Your task to perform on an android device: Clear all items from cart on costco. Search for "apple airpods" on costco, select the first entry, and add it to the cart. Image 0: 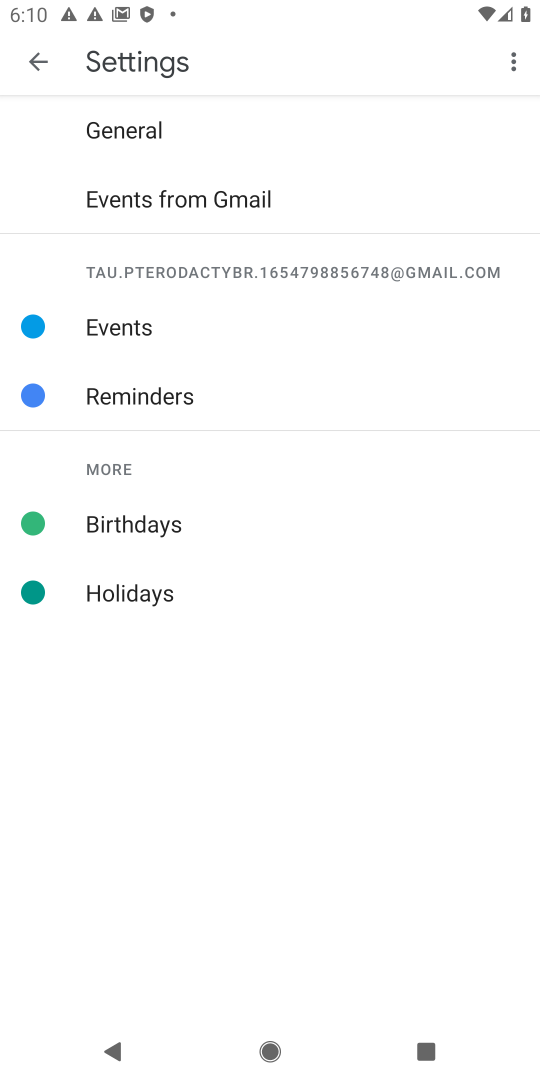
Step 0: press home button
Your task to perform on an android device: Clear all items from cart on costco. Search for "apple airpods" on costco, select the first entry, and add it to the cart. Image 1: 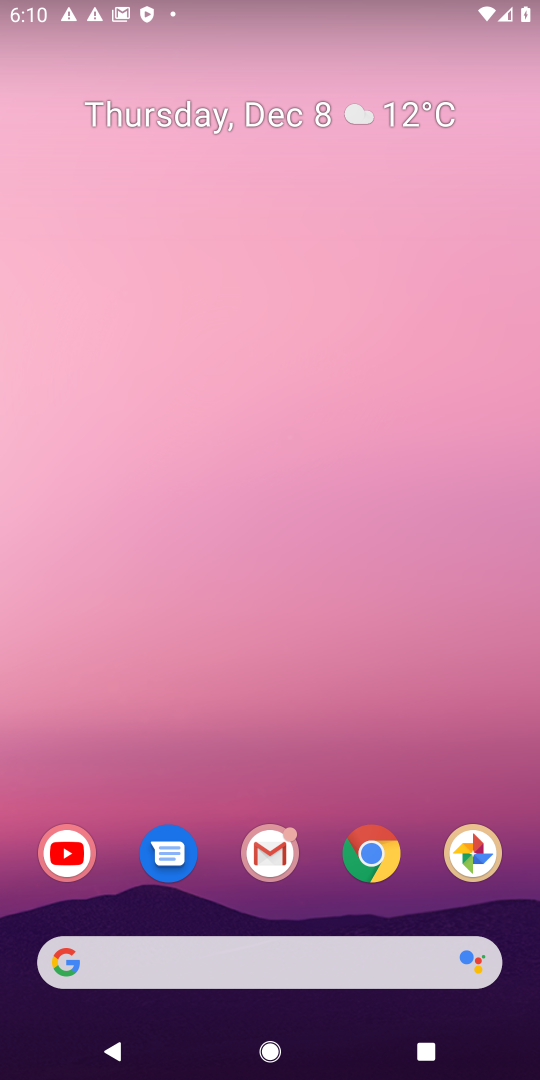
Step 1: click (155, 956)
Your task to perform on an android device: Clear all items from cart on costco. Search for "apple airpods" on costco, select the first entry, and add it to the cart. Image 2: 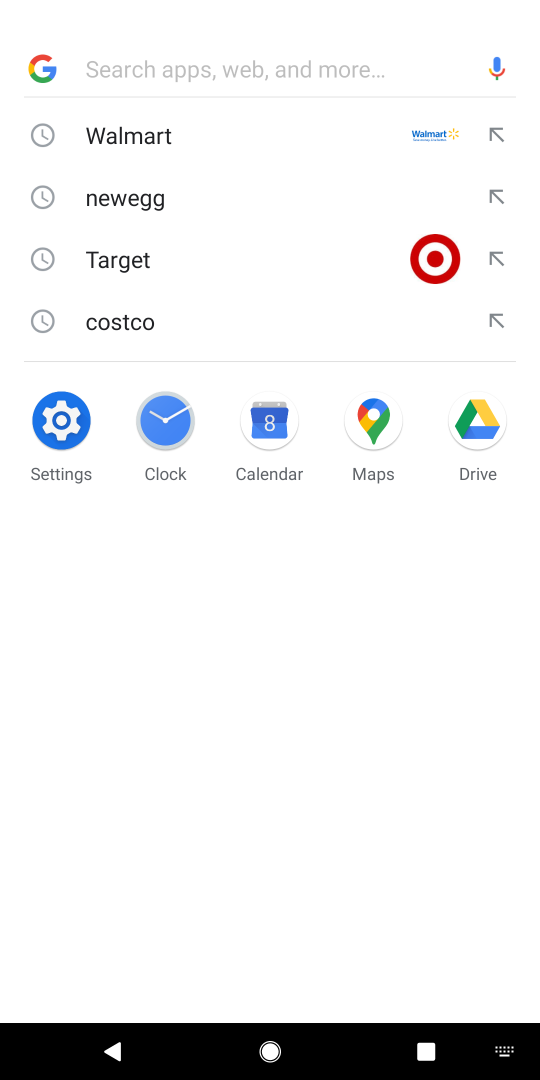
Step 2: click (86, 327)
Your task to perform on an android device: Clear all items from cart on costco. Search for "apple airpods" on costco, select the first entry, and add it to the cart. Image 3: 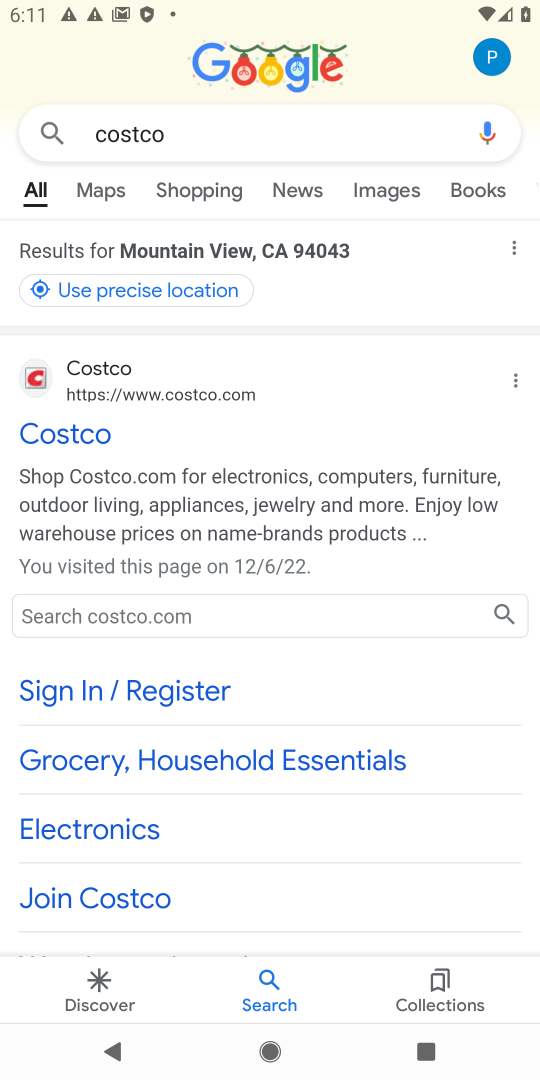
Step 3: click (68, 439)
Your task to perform on an android device: Clear all items from cart on costco. Search for "apple airpods" on costco, select the first entry, and add it to the cart. Image 4: 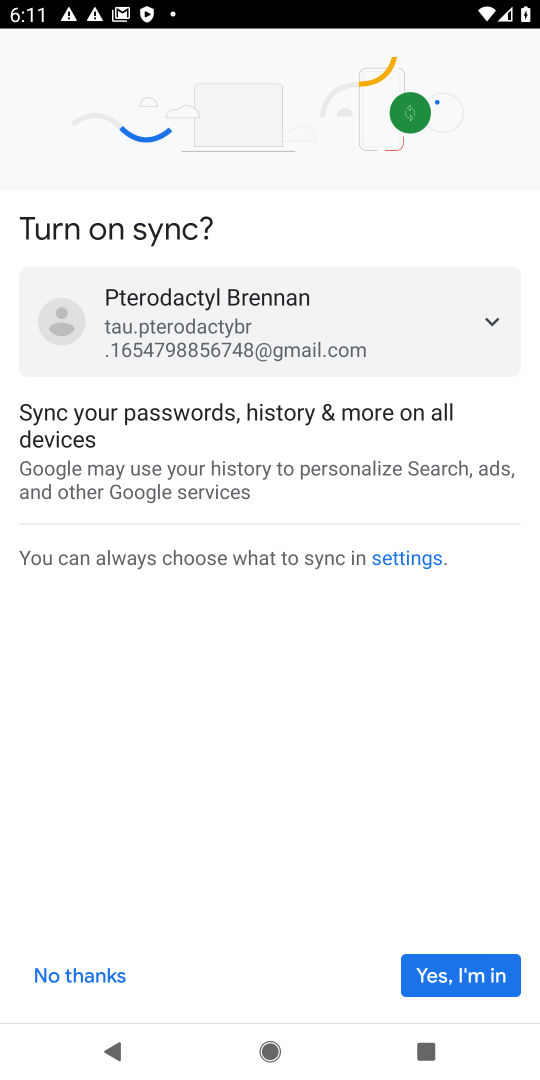
Step 4: click (451, 977)
Your task to perform on an android device: Clear all items from cart on costco. Search for "apple airpods" on costco, select the first entry, and add it to the cart. Image 5: 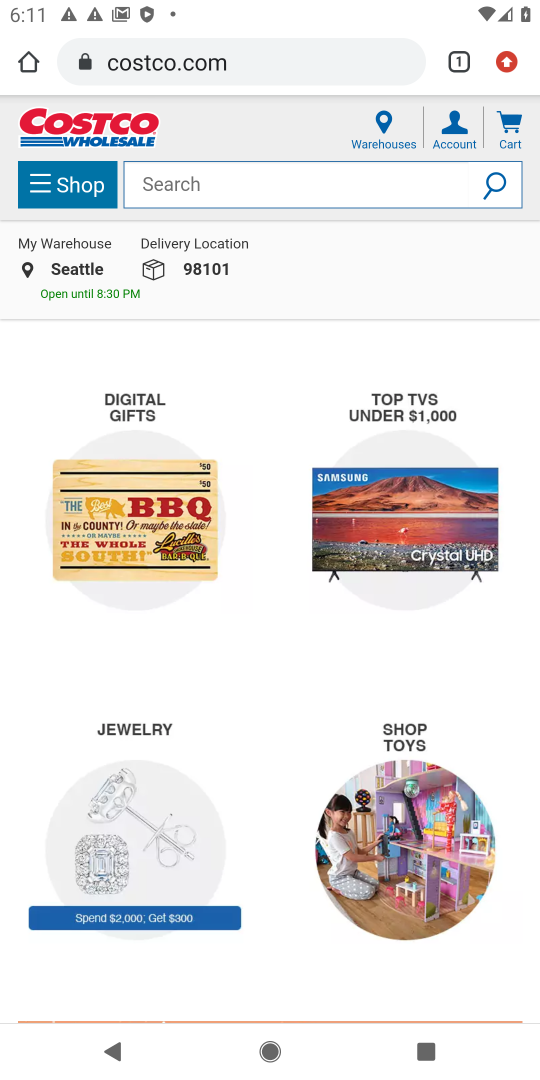
Step 5: click (506, 126)
Your task to perform on an android device: Clear all items from cart on costco. Search for "apple airpods" on costco, select the first entry, and add it to the cart. Image 6: 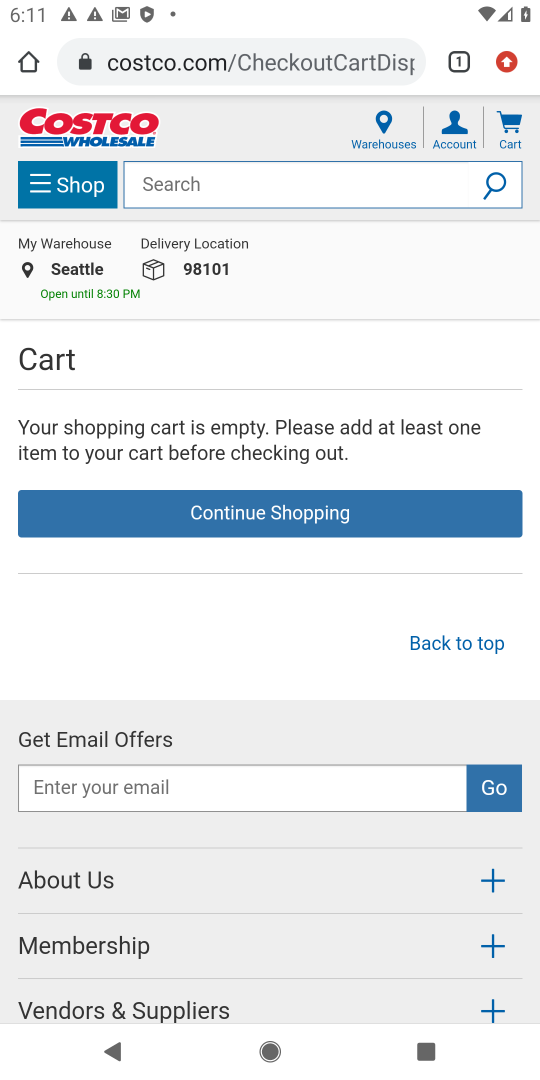
Step 6: click (160, 187)
Your task to perform on an android device: Clear all items from cart on costco. Search for "apple airpods" on costco, select the first entry, and add it to the cart. Image 7: 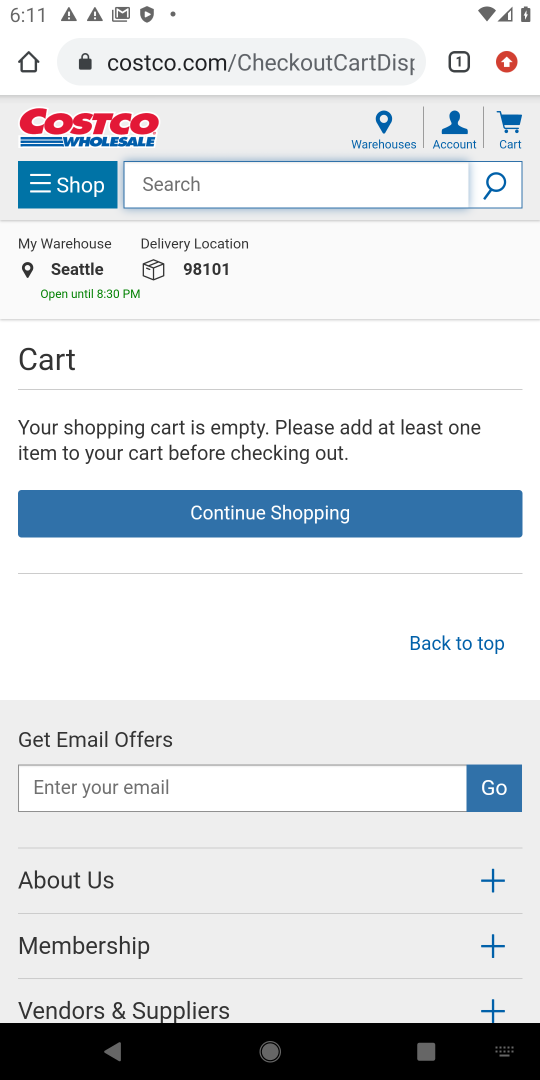
Step 7: type "apple airpods"
Your task to perform on an android device: Clear all items from cart on costco. Search for "apple airpods" on costco, select the first entry, and add it to the cart. Image 8: 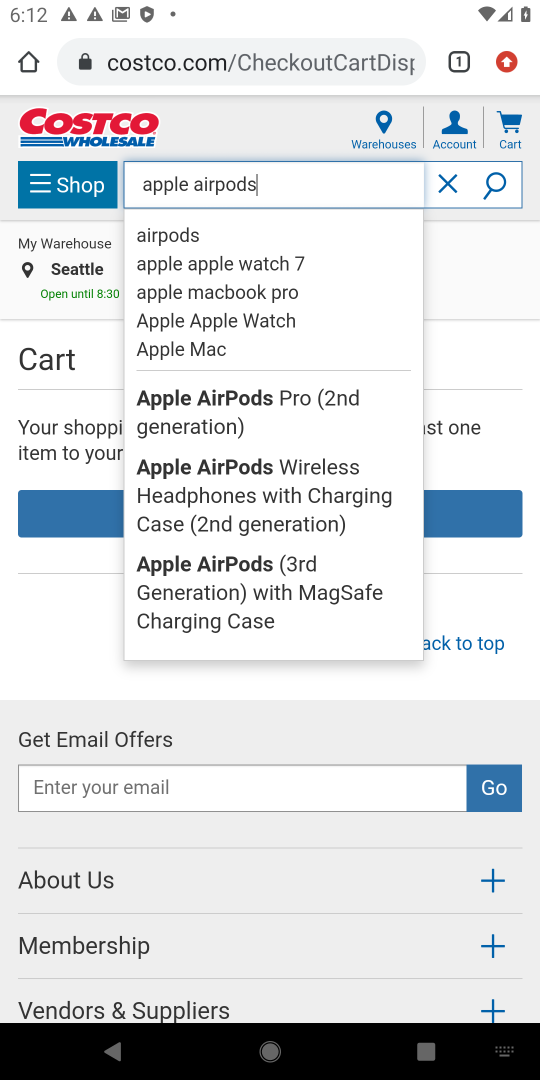
Step 8: click (173, 232)
Your task to perform on an android device: Clear all items from cart on costco. Search for "apple airpods" on costco, select the first entry, and add it to the cart. Image 9: 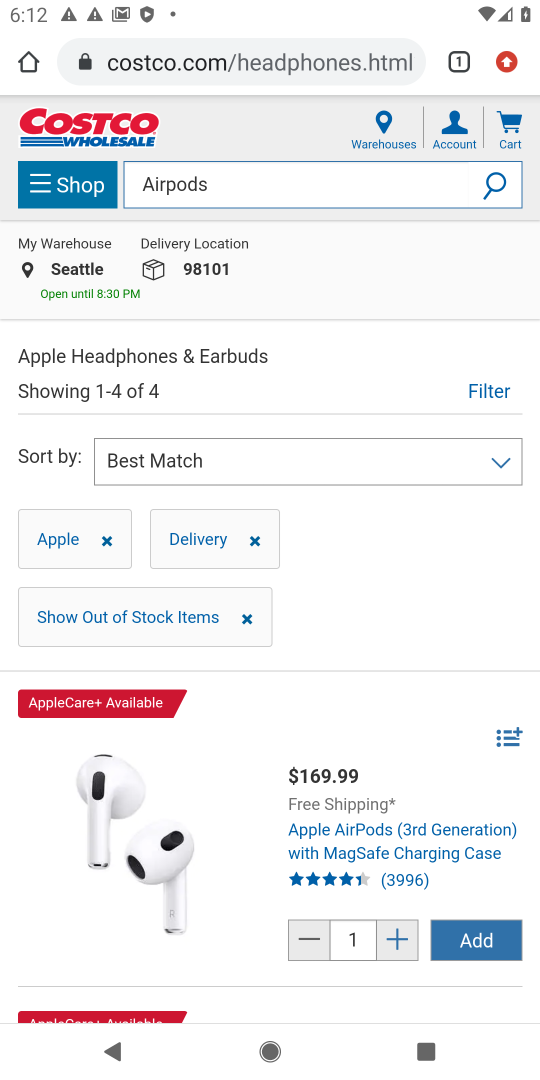
Step 9: drag from (388, 735) to (348, 346)
Your task to perform on an android device: Clear all items from cart on costco. Search for "apple airpods" on costco, select the first entry, and add it to the cart. Image 10: 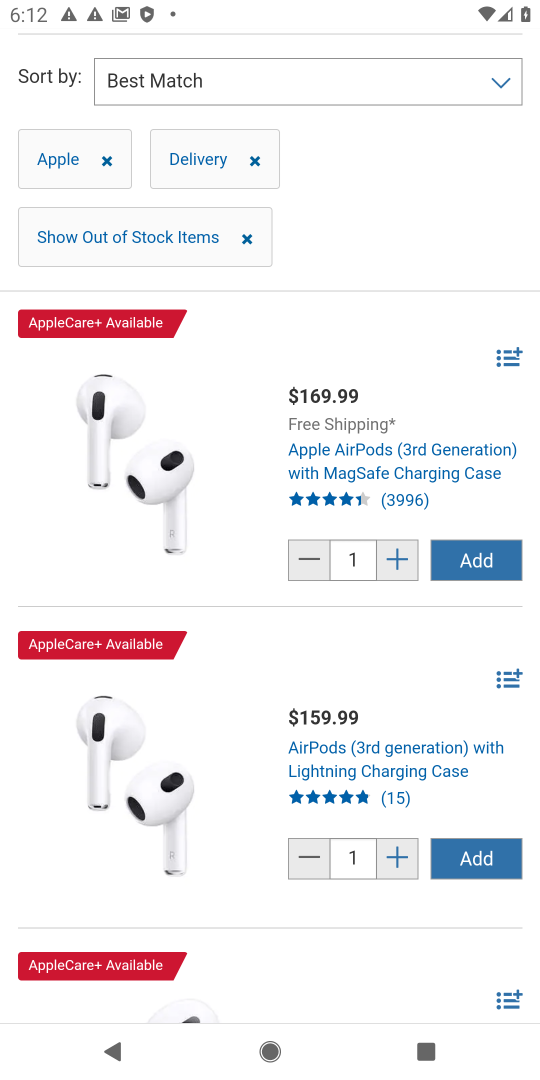
Step 10: click (471, 569)
Your task to perform on an android device: Clear all items from cart on costco. Search for "apple airpods" on costco, select the first entry, and add it to the cart. Image 11: 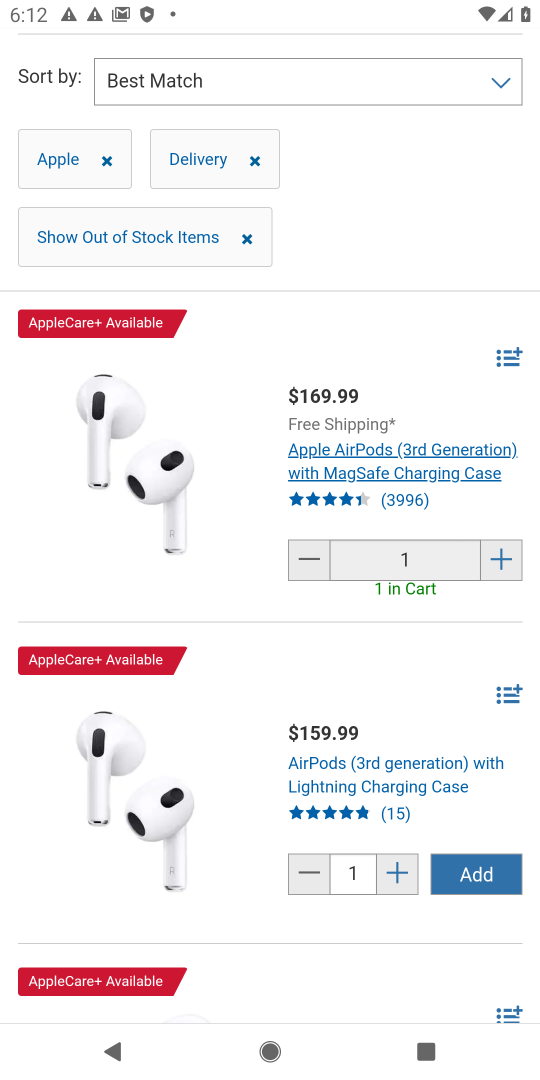
Step 11: task complete